Your task to perform on an android device: What's the weather going to be tomorrow? Image 0: 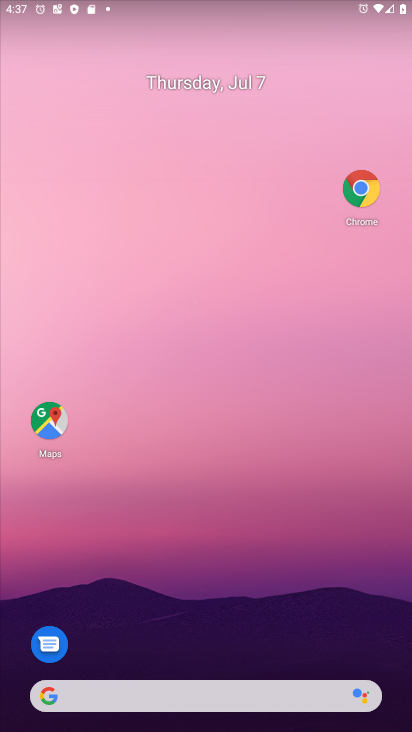
Step 0: click (349, 190)
Your task to perform on an android device: What's the weather going to be tomorrow? Image 1: 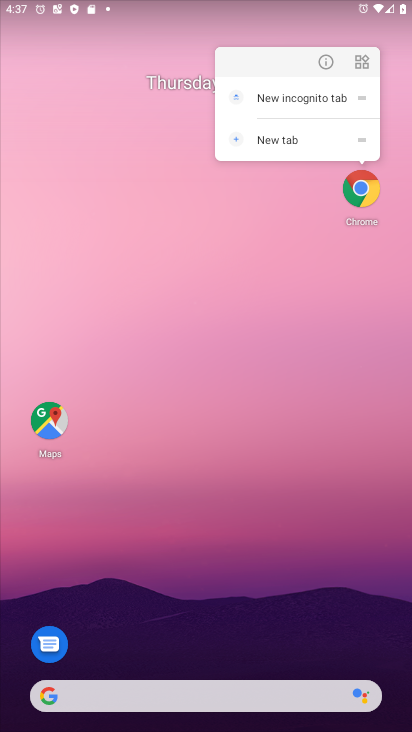
Step 1: click (347, 192)
Your task to perform on an android device: What's the weather going to be tomorrow? Image 2: 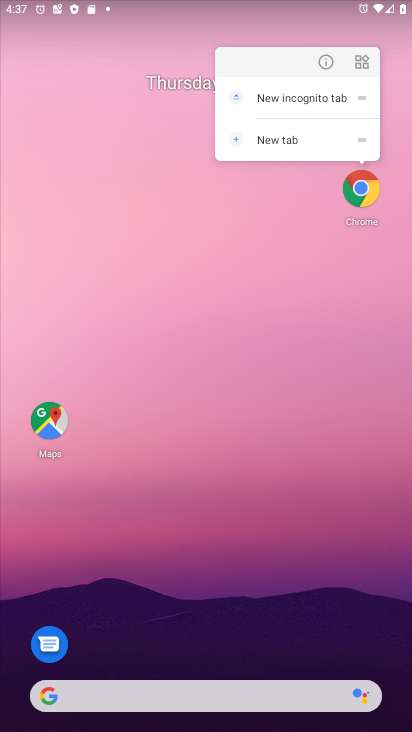
Step 2: click (347, 195)
Your task to perform on an android device: What's the weather going to be tomorrow? Image 3: 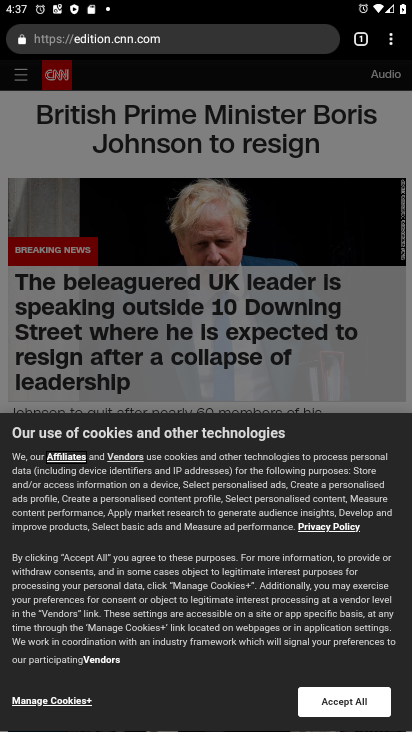
Step 3: click (276, 44)
Your task to perform on an android device: What's the weather going to be tomorrow? Image 4: 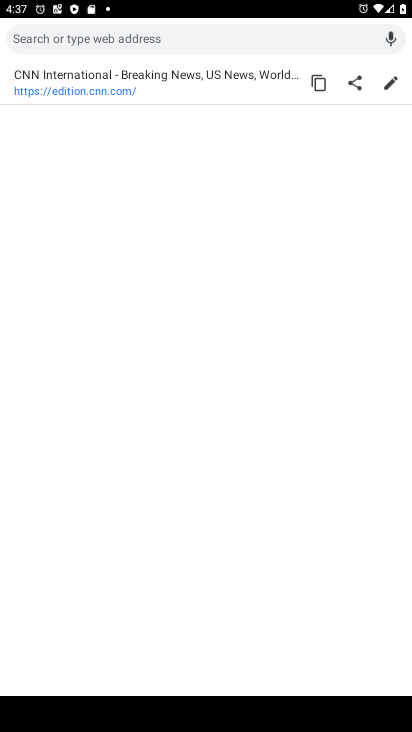
Step 4: type " What's the weather going to be tomorrow?"
Your task to perform on an android device: What's the weather going to be tomorrow? Image 5: 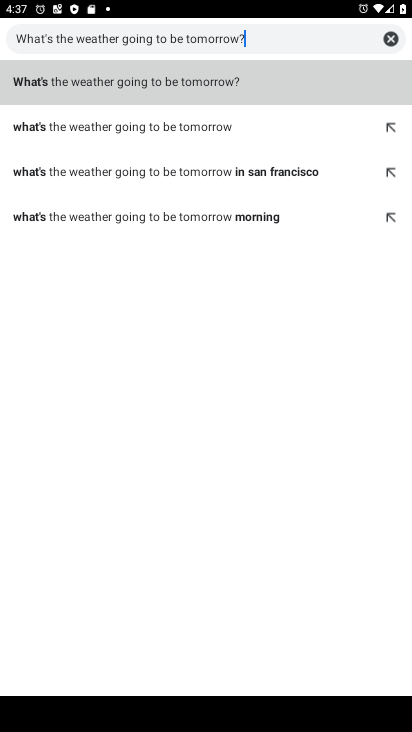
Step 5: type ""
Your task to perform on an android device: What's the weather going to be tomorrow? Image 6: 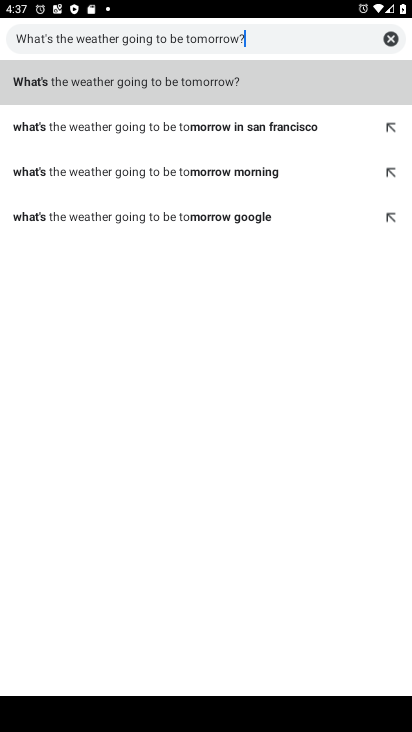
Step 6: click (177, 88)
Your task to perform on an android device: What's the weather going to be tomorrow? Image 7: 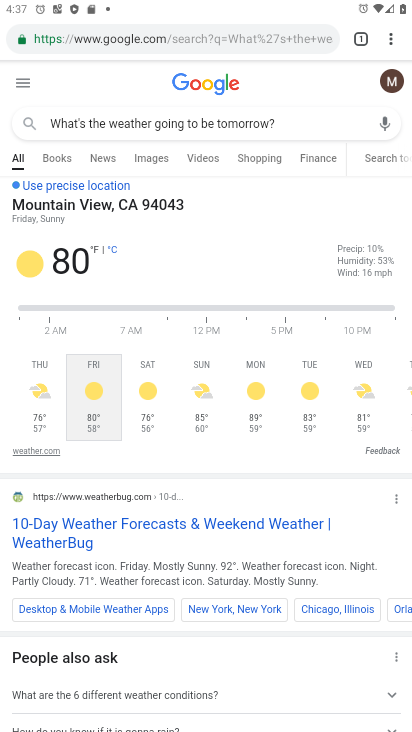
Step 7: task complete